Your task to perform on an android device: Open location settings Image 0: 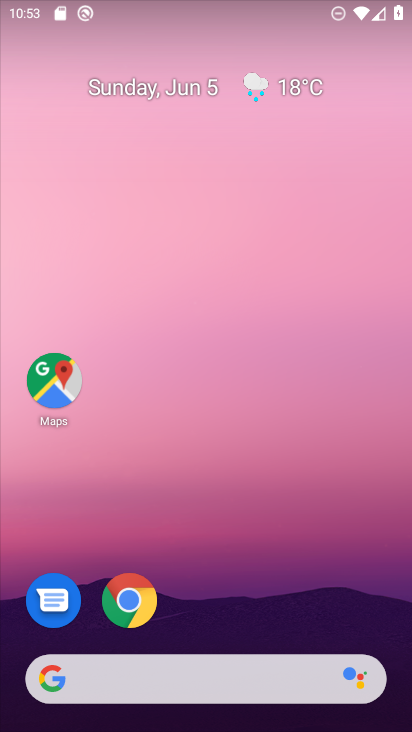
Step 0: drag from (214, 554) to (245, 143)
Your task to perform on an android device: Open location settings Image 1: 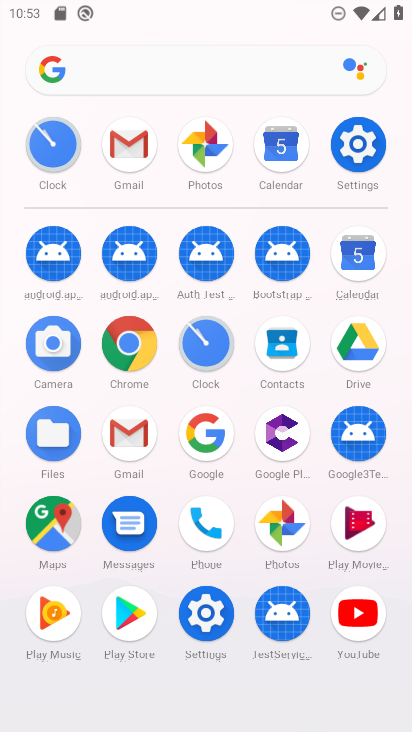
Step 1: click (326, 150)
Your task to perform on an android device: Open location settings Image 2: 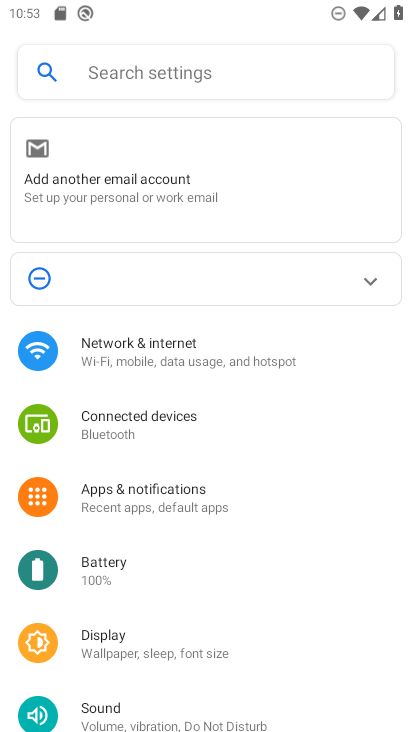
Step 2: drag from (246, 691) to (299, 251)
Your task to perform on an android device: Open location settings Image 3: 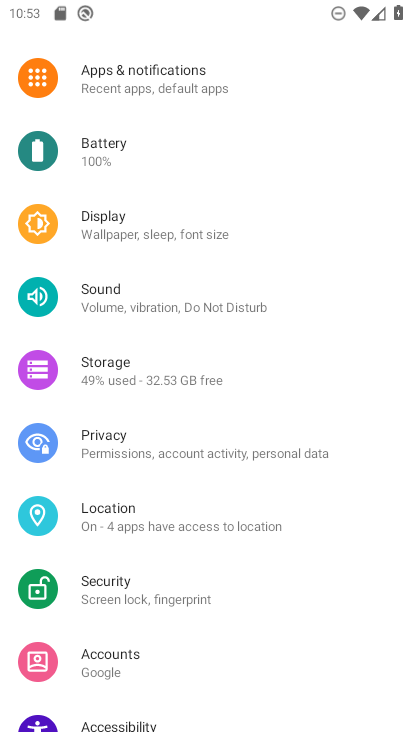
Step 3: click (129, 511)
Your task to perform on an android device: Open location settings Image 4: 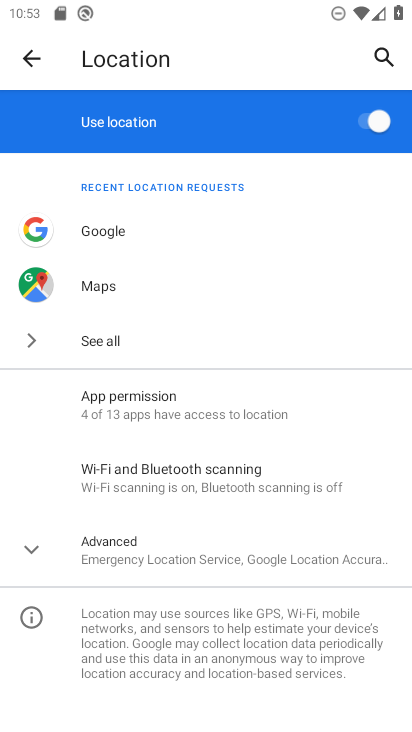
Step 4: task complete